Your task to perform on an android device: toggle translation in the chrome app Image 0: 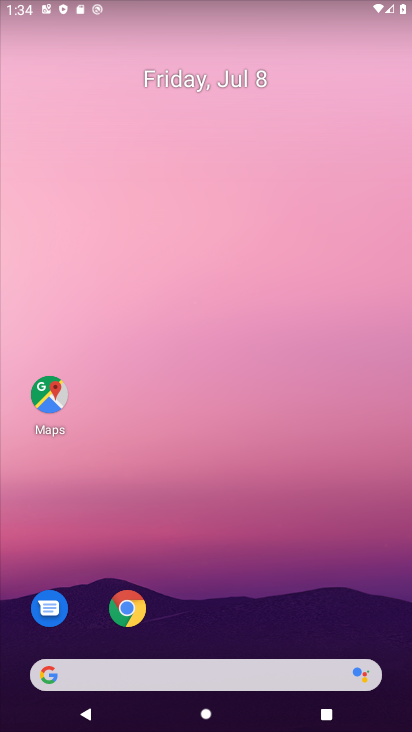
Step 0: click (127, 608)
Your task to perform on an android device: toggle translation in the chrome app Image 1: 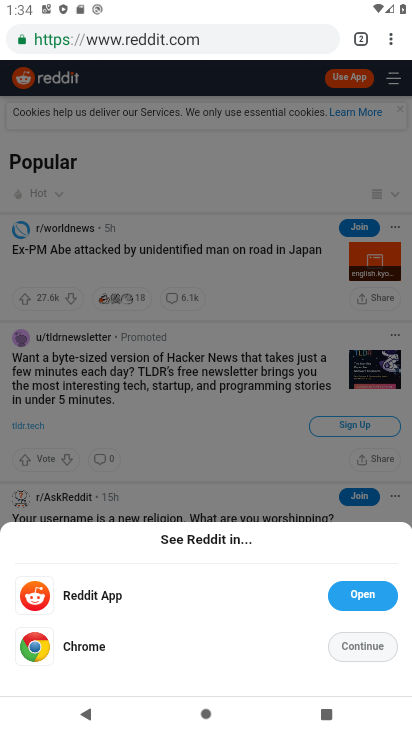
Step 1: click (389, 41)
Your task to perform on an android device: toggle translation in the chrome app Image 2: 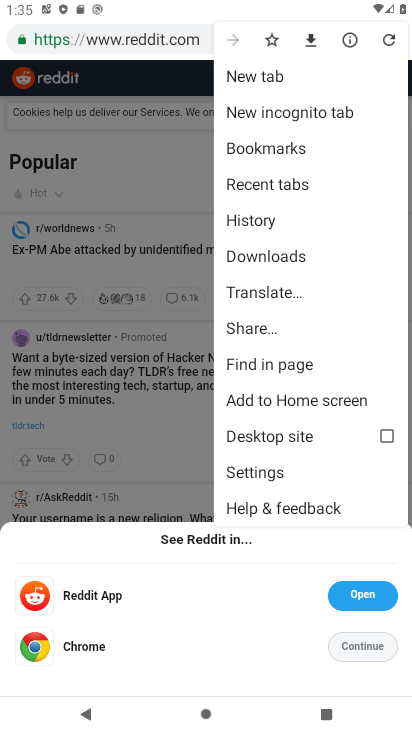
Step 2: click (263, 471)
Your task to perform on an android device: toggle translation in the chrome app Image 3: 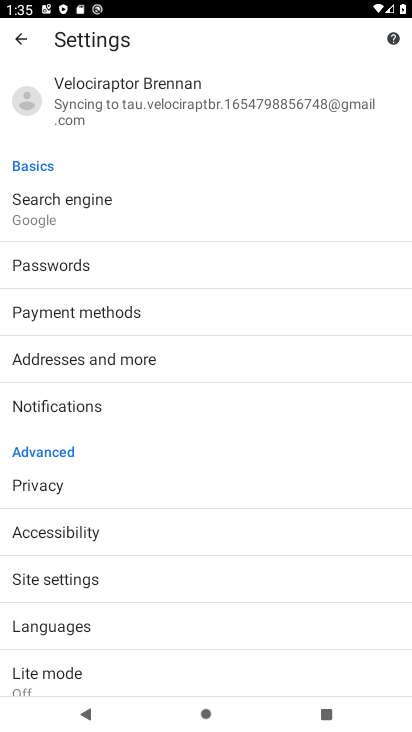
Step 3: click (64, 624)
Your task to perform on an android device: toggle translation in the chrome app Image 4: 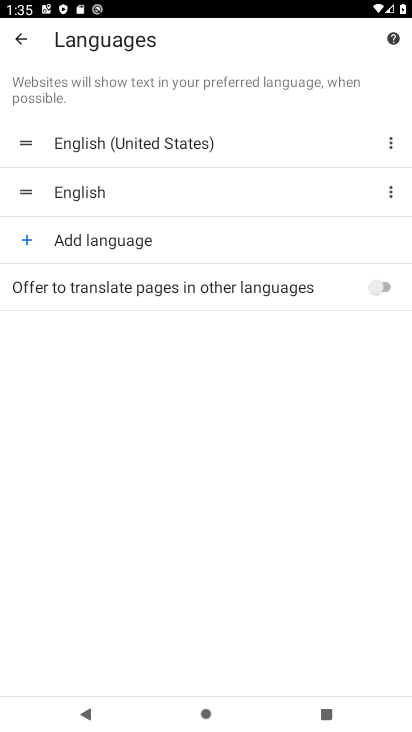
Step 4: click (385, 285)
Your task to perform on an android device: toggle translation in the chrome app Image 5: 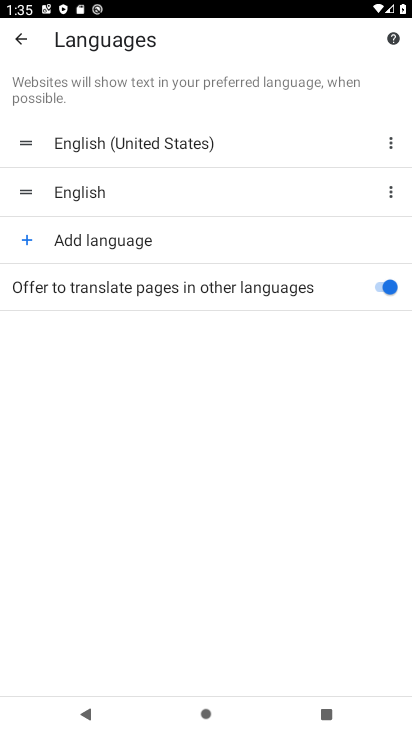
Step 5: task complete